Your task to perform on an android device: Open Chrome and go to settings Image 0: 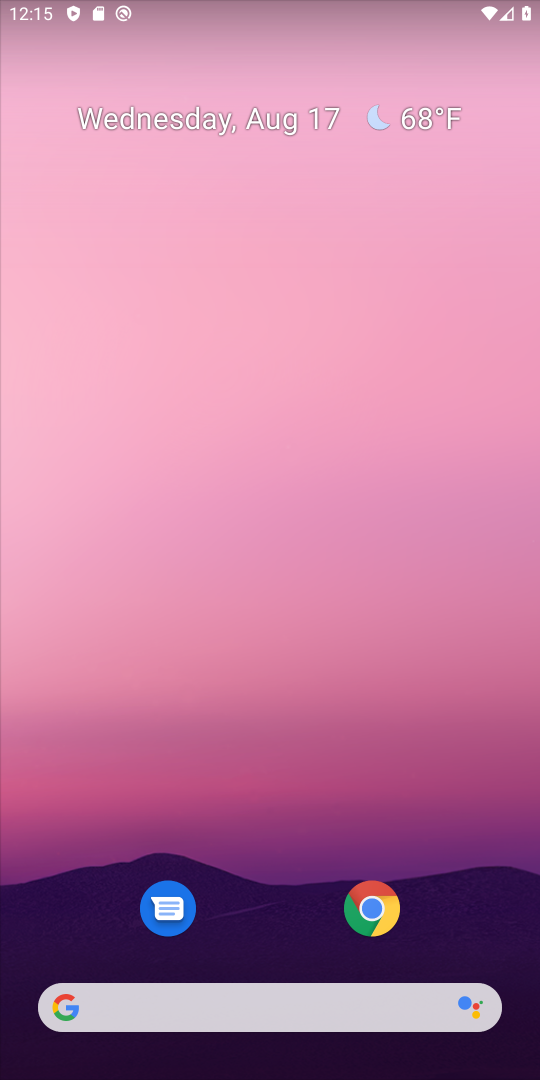
Step 0: click (391, 925)
Your task to perform on an android device: Open Chrome and go to settings Image 1: 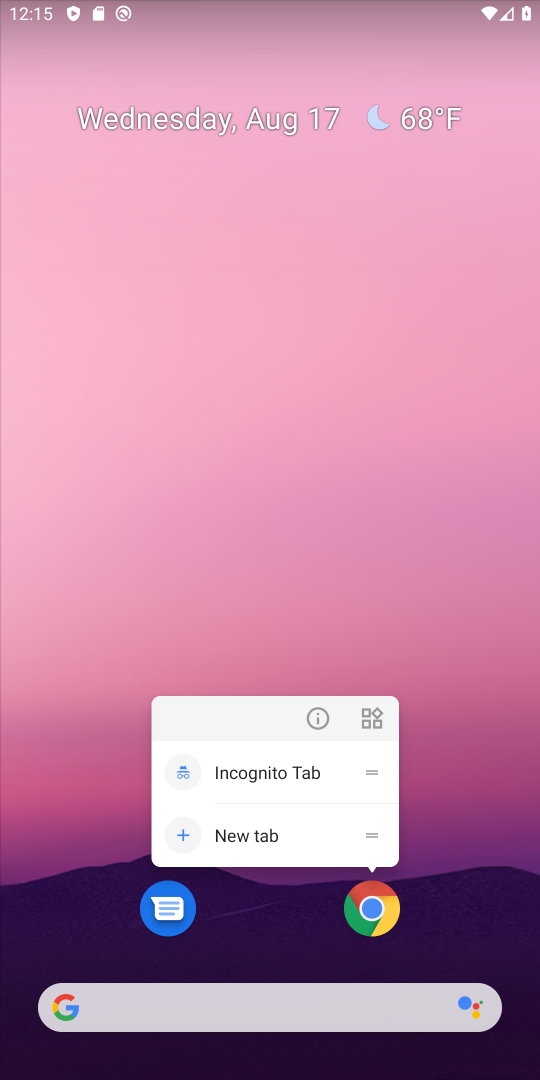
Step 1: click (391, 925)
Your task to perform on an android device: Open Chrome and go to settings Image 2: 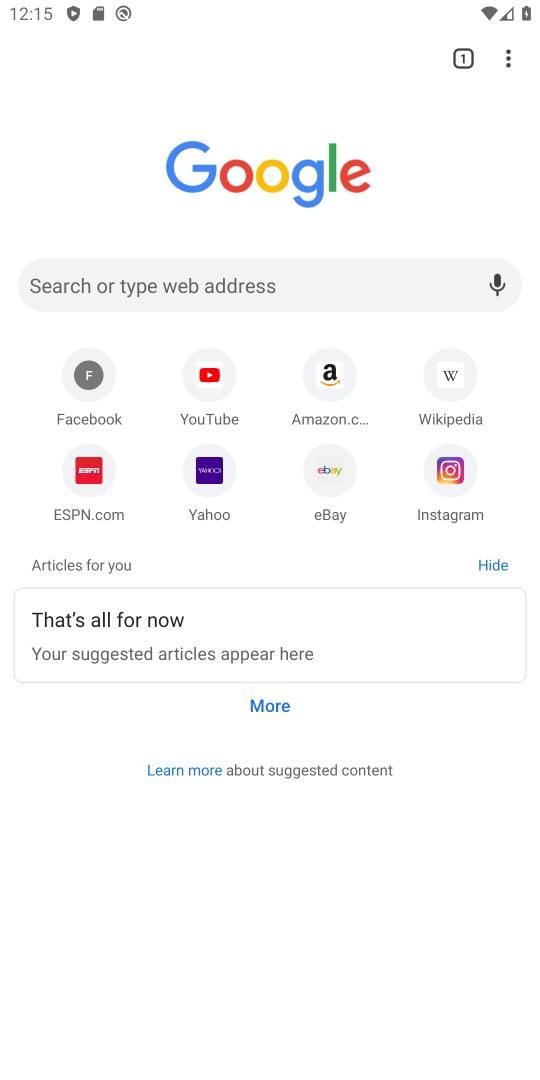
Step 2: click (501, 61)
Your task to perform on an android device: Open Chrome and go to settings Image 3: 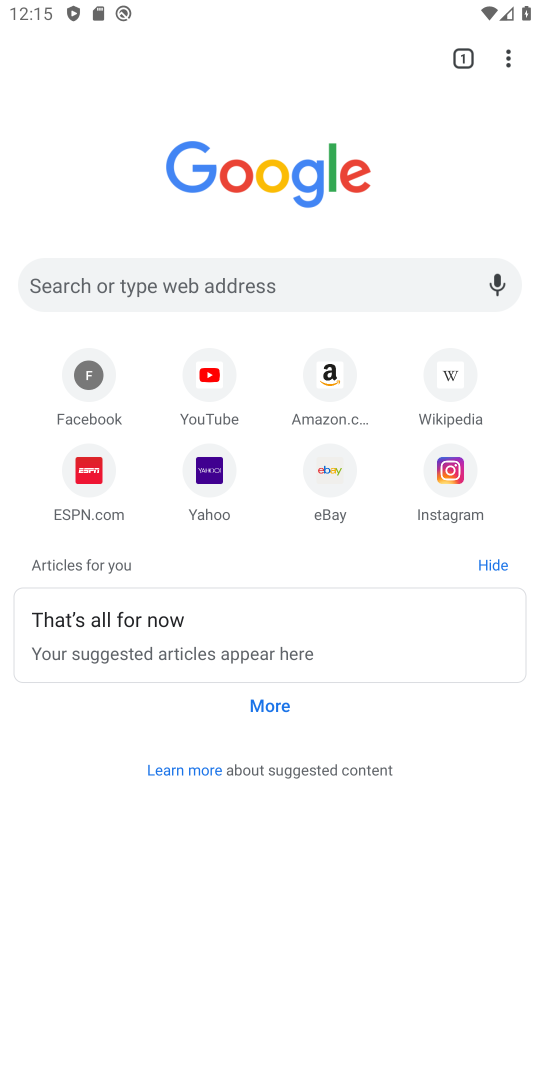
Step 3: click (507, 61)
Your task to perform on an android device: Open Chrome and go to settings Image 4: 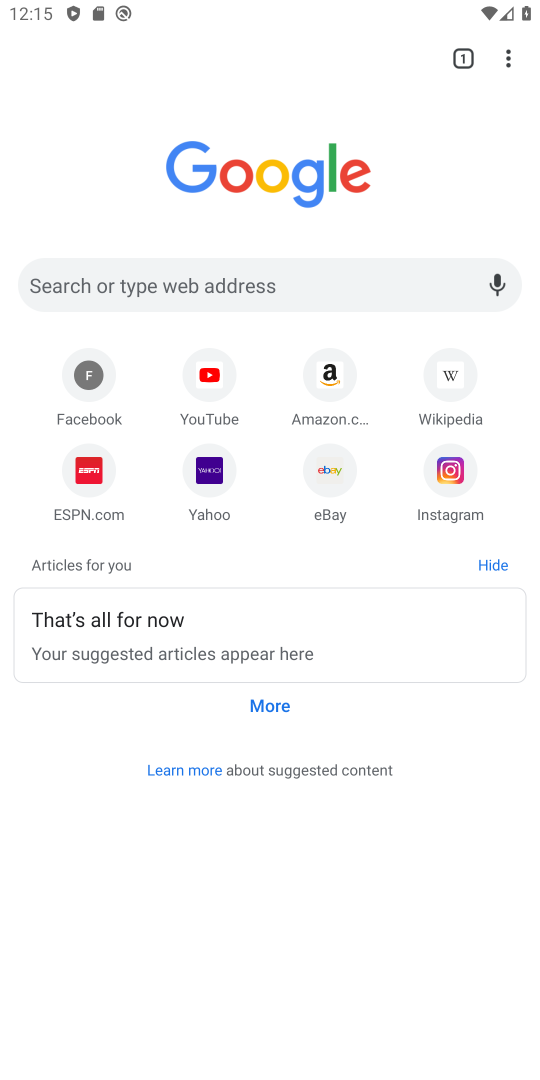
Step 4: click (503, 69)
Your task to perform on an android device: Open Chrome and go to settings Image 5: 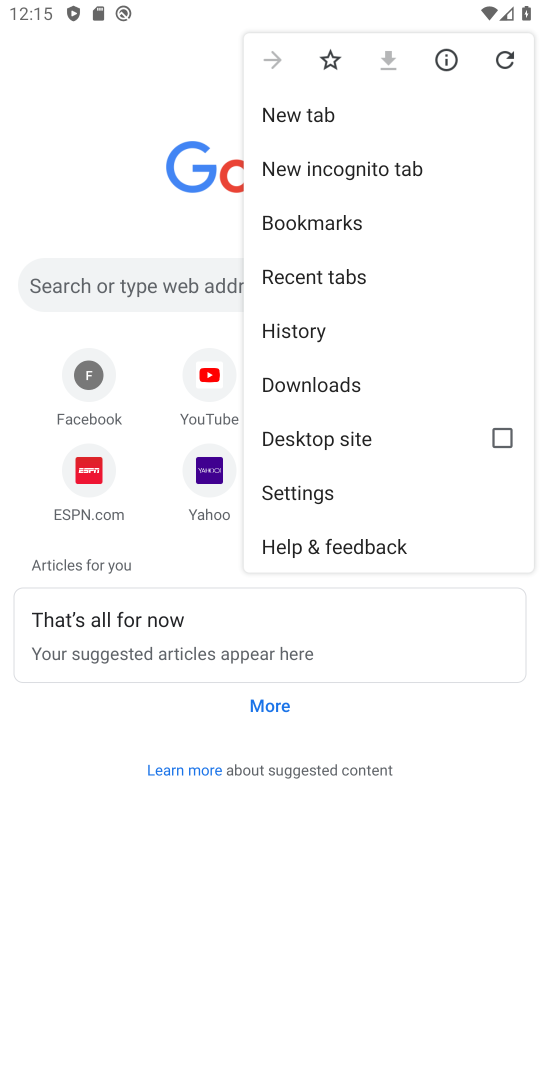
Step 5: click (301, 492)
Your task to perform on an android device: Open Chrome and go to settings Image 6: 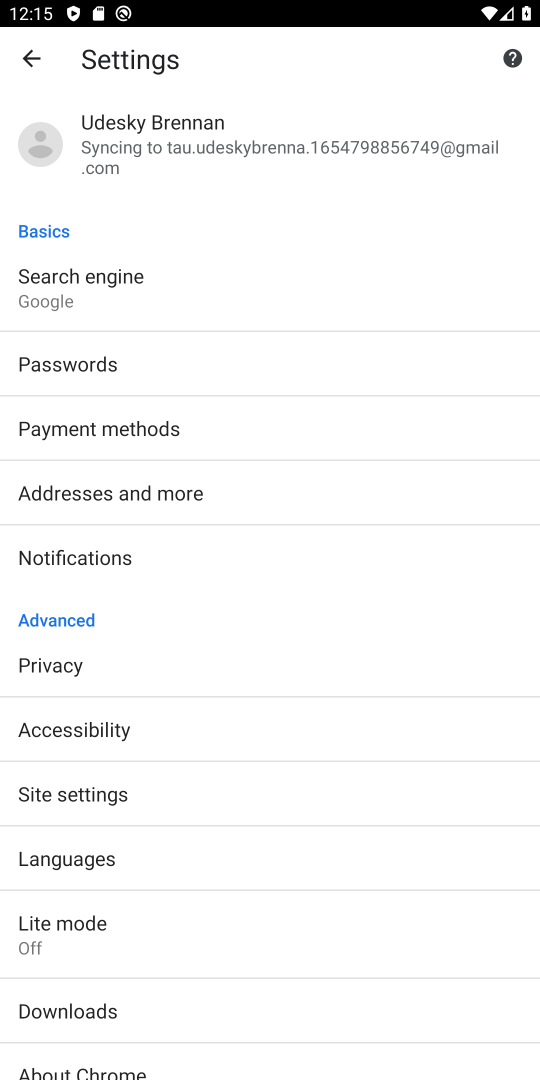
Step 6: task complete